Your task to perform on an android device: refresh tabs in the chrome app Image 0: 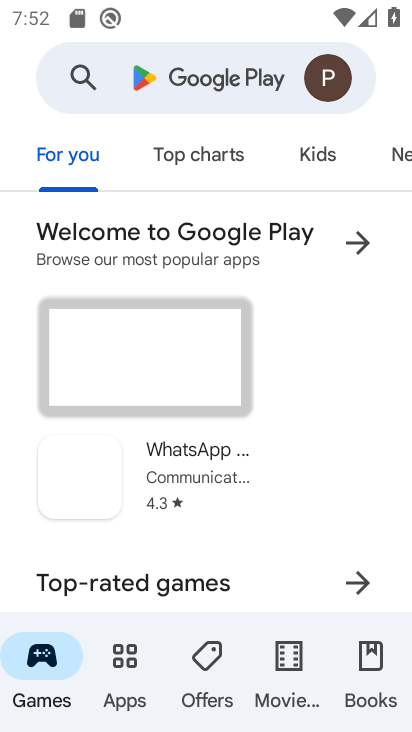
Step 0: press home button
Your task to perform on an android device: refresh tabs in the chrome app Image 1: 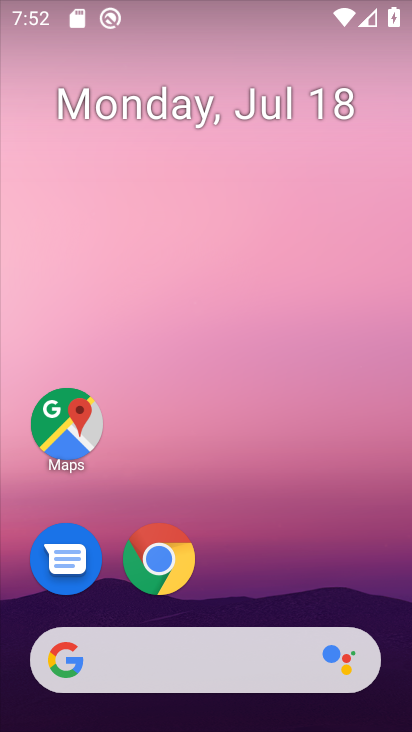
Step 1: drag from (318, 586) to (339, 108)
Your task to perform on an android device: refresh tabs in the chrome app Image 2: 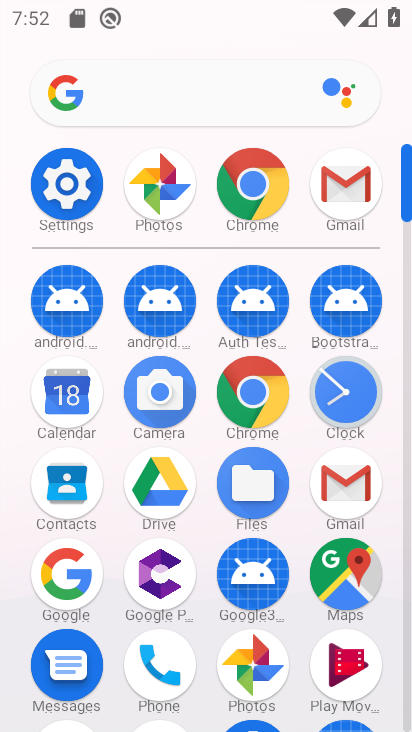
Step 2: click (250, 392)
Your task to perform on an android device: refresh tabs in the chrome app Image 3: 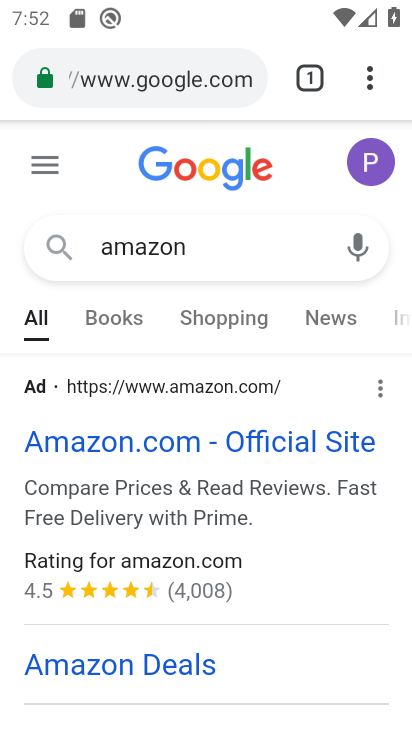
Step 3: click (370, 85)
Your task to perform on an android device: refresh tabs in the chrome app Image 4: 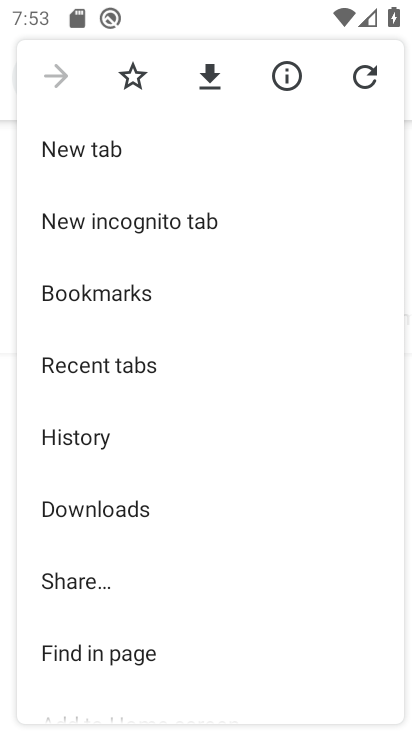
Step 4: click (370, 85)
Your task to perform on an android device: refresh tabs in the chrome app Image 5: 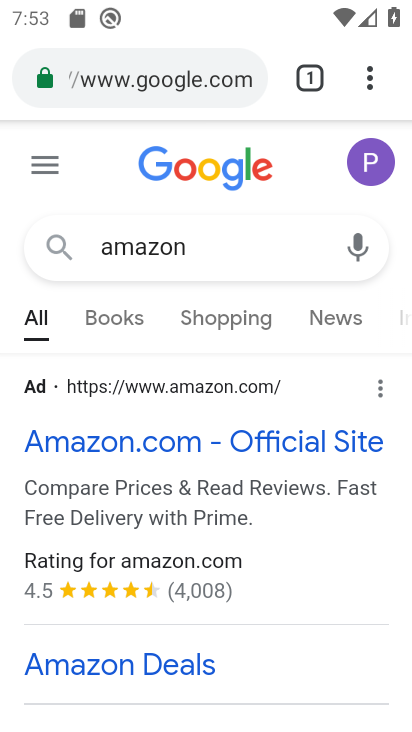
Step 5: task complete